Your task to perform on an android device: open a new tab in the chrome app Image 0: 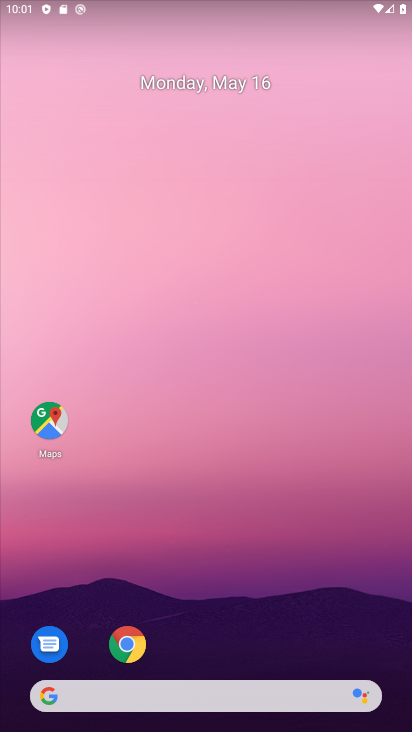
Step 0: click (125, 652)
Your task to perform on an android device: open a new tab in the chrome app Image 1: 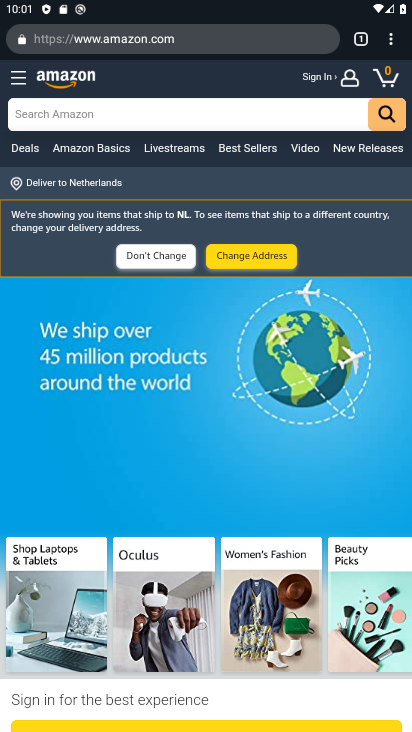
Step 1: task complete